Your task to perform on an android device: Is it going to rain this weekend? Image 0: 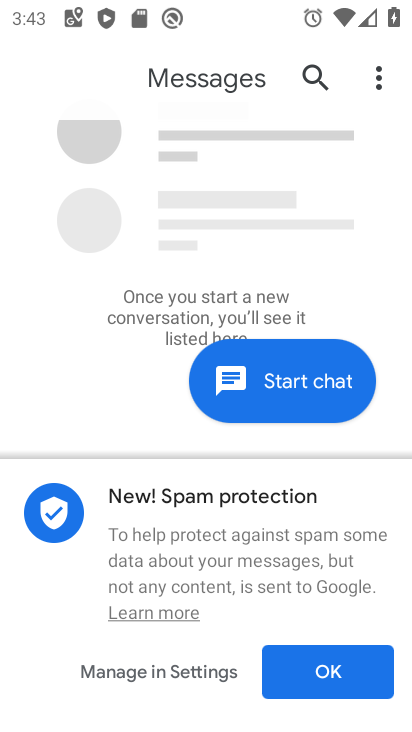
Step 0: press home button
Your task to perform on an android device: Is it going to rain this weekend? Image 1: 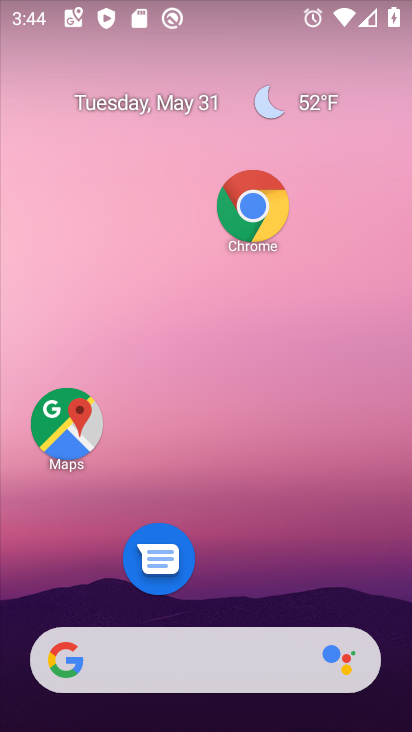
Step 1: drag from (242, 579) to (215, 142)
Your task to perform on an android device: Is it going to rain this weekend? Image 2: 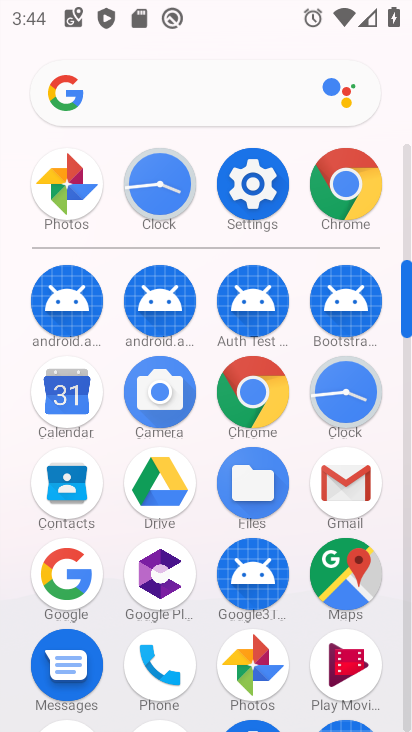
Step 2: click (71, 581)
Your task to perform on an android device: Is it going to rain this weekend? Image 3: 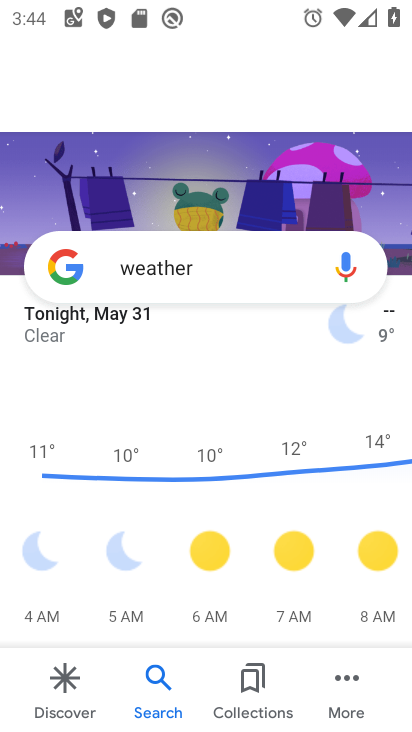
Step 3: drag from (257, 296) to (280, 233)
Your task to perform on an android device: Is it going to rain this weekend? Image 4: 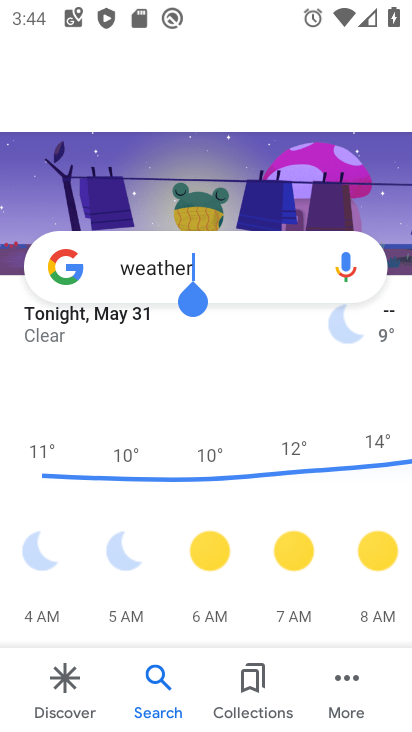
Step 4: drag from (265, 328) to (270, 276)
Your task to perform on an android device: Is it going to rain this weekend? Image 5: 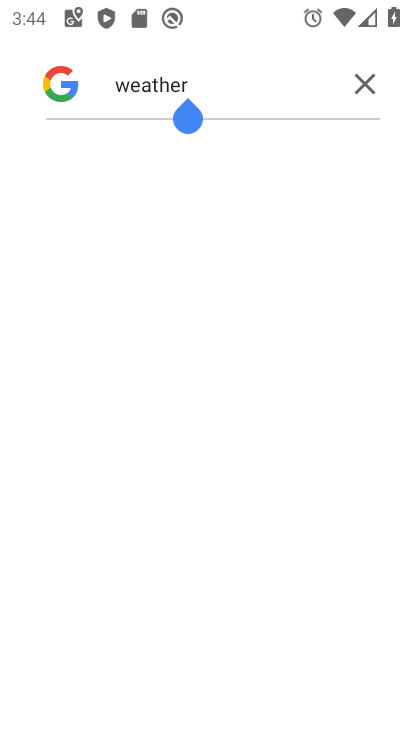
Step 5: click (270, 276)
Your task to perform on an android device: Is it going to rain this weekend? Image 6: 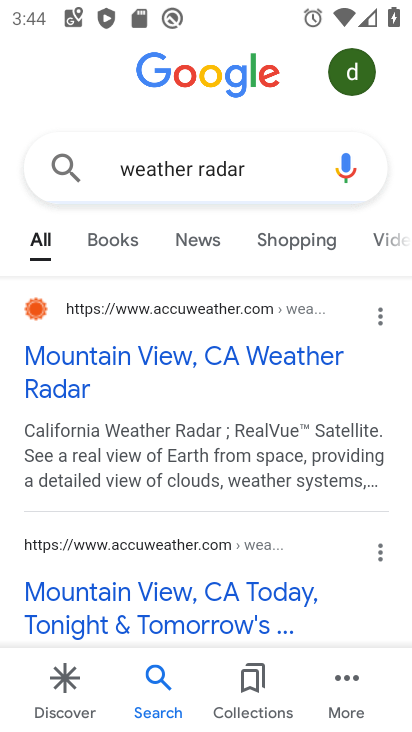
Step 6: click (254, 171)
Your task to perform on an android device: Is it going to rain this weekend? Image 7: 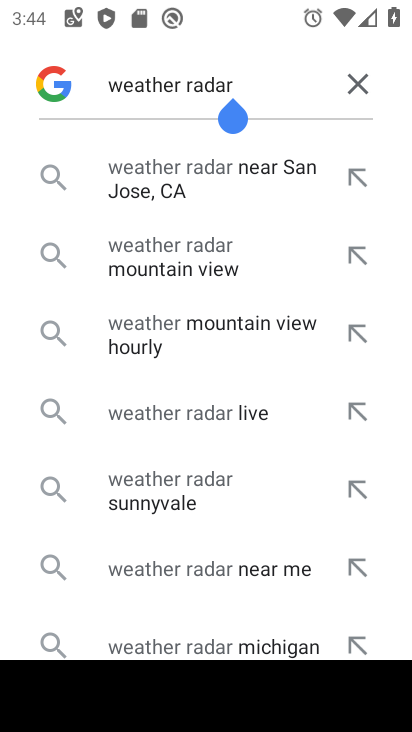
Step 7: click (360, 82)
Your task to perform on an android device: Is it going to rain this weekend? Image 8: 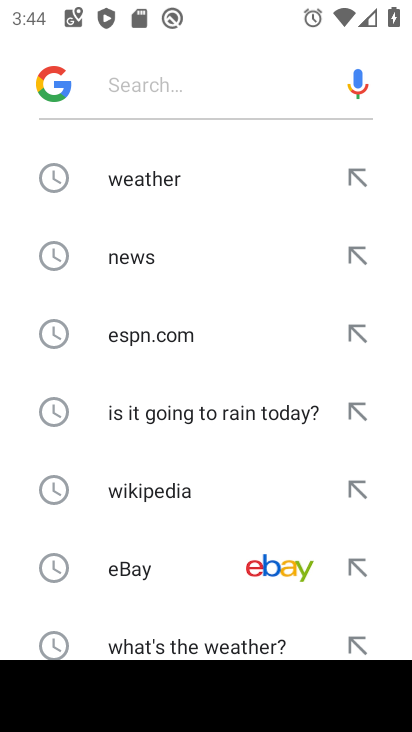
Step 8: click (210, 181)
Your task to perform on an android device: Is it going to rain this weekend? Image 9: 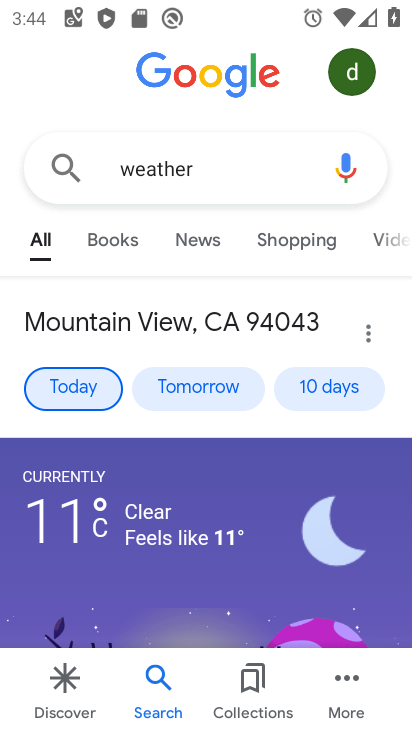
Step 9: click (310, 381)
Your task to perform on an android device: Is it going to rain this weekend? Image 10: 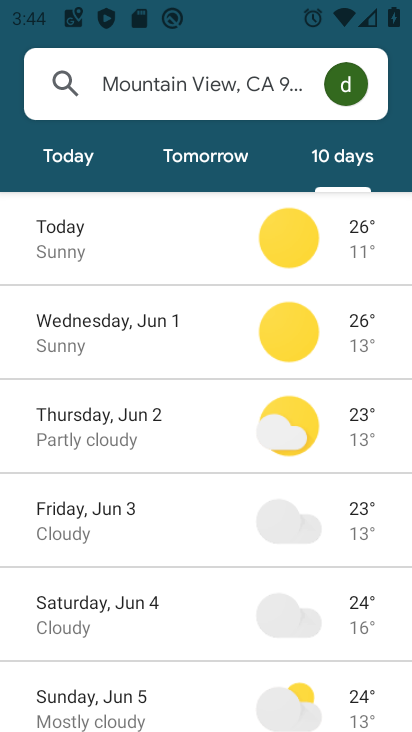
Step 10: task complete